Your task to perform on an android device: turn notification dots off Image 0: 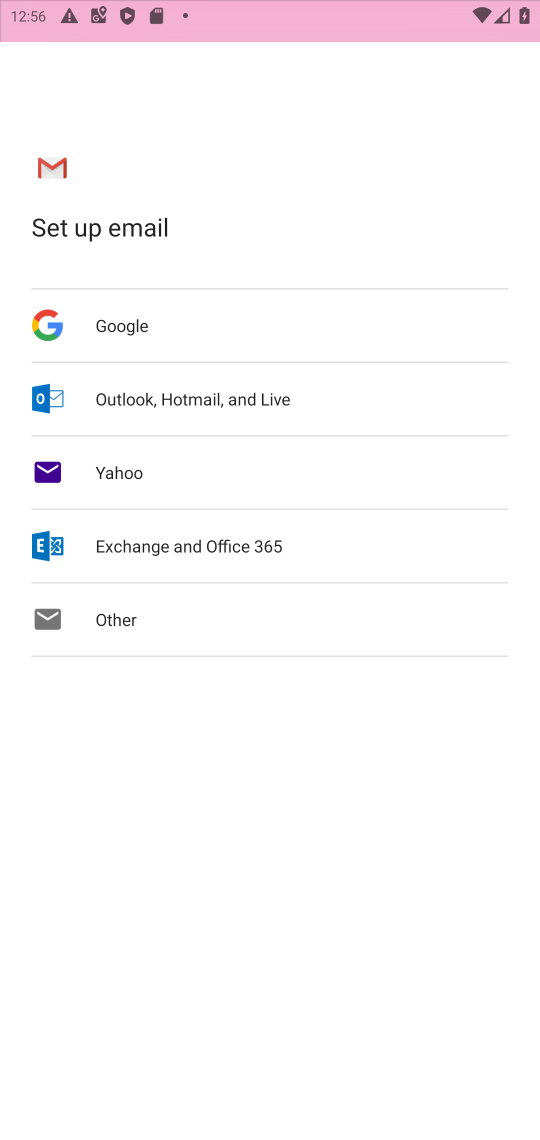
Step 0: drag from (257, 537) to (266, 374)
Your task to perform on an android device: turn notification dots off Image 1: 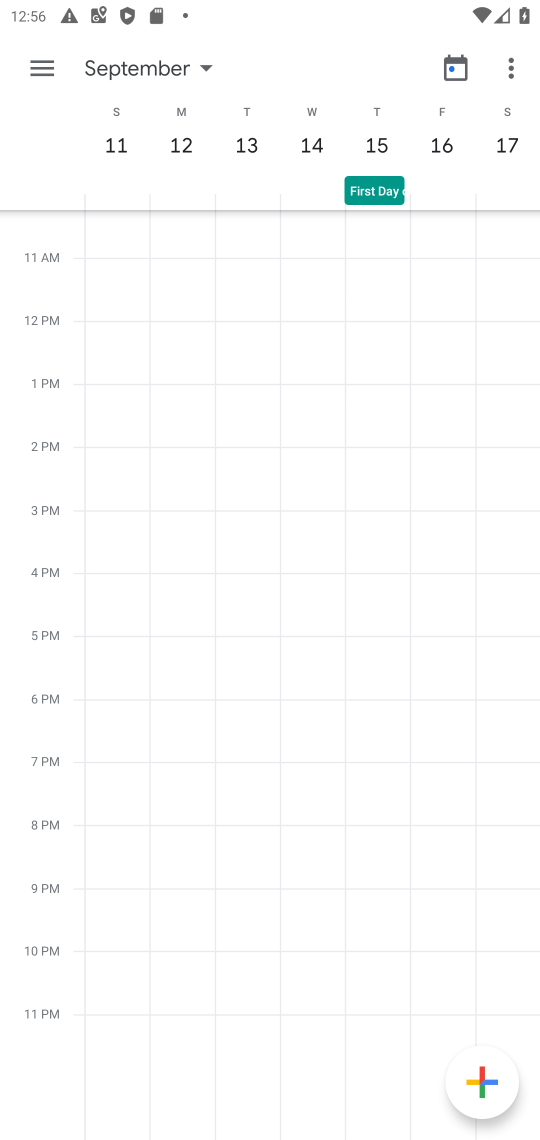
Step 1: press home button
Your task to perform on an android device: turn notification dots off Image 2: 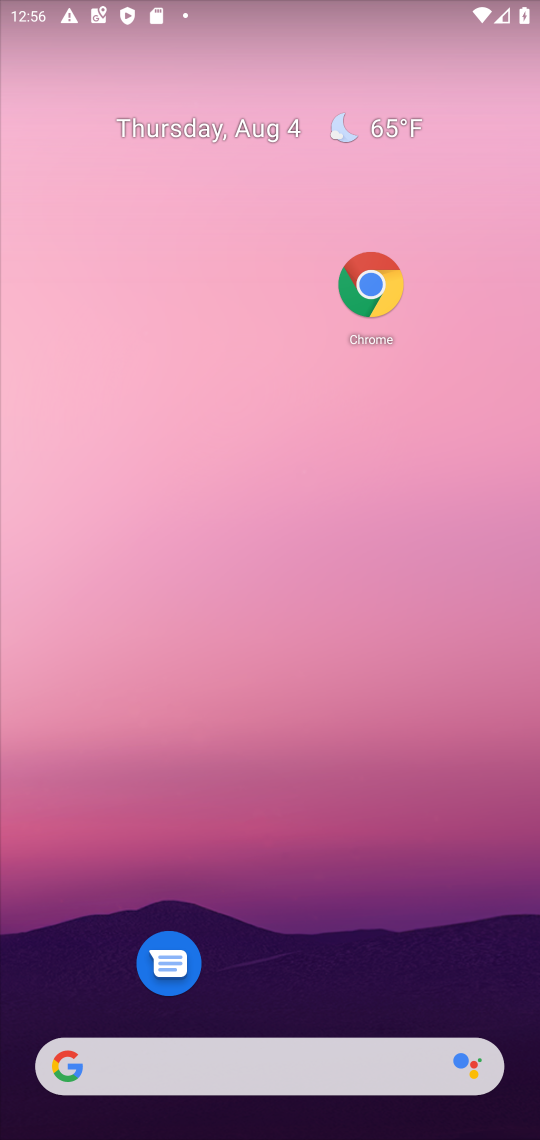
Step 2: drag from (280, 960) to (308, 325)
Your task to perform on an android device: turn notification dots off Image 3: 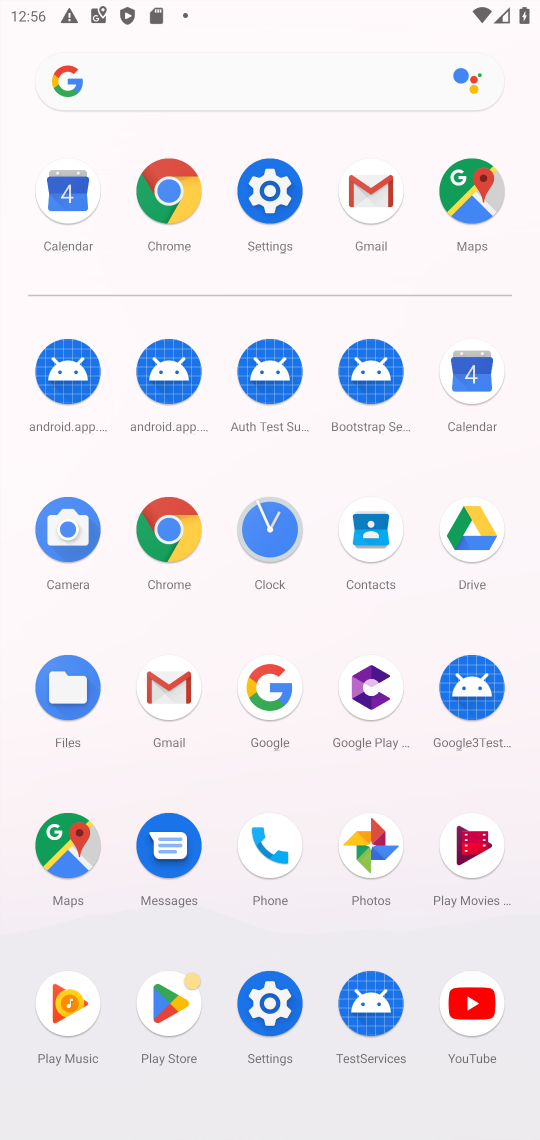
Step 3: click (257, 182)
Your task to perform on an android device: turn notification dots off Image 4: 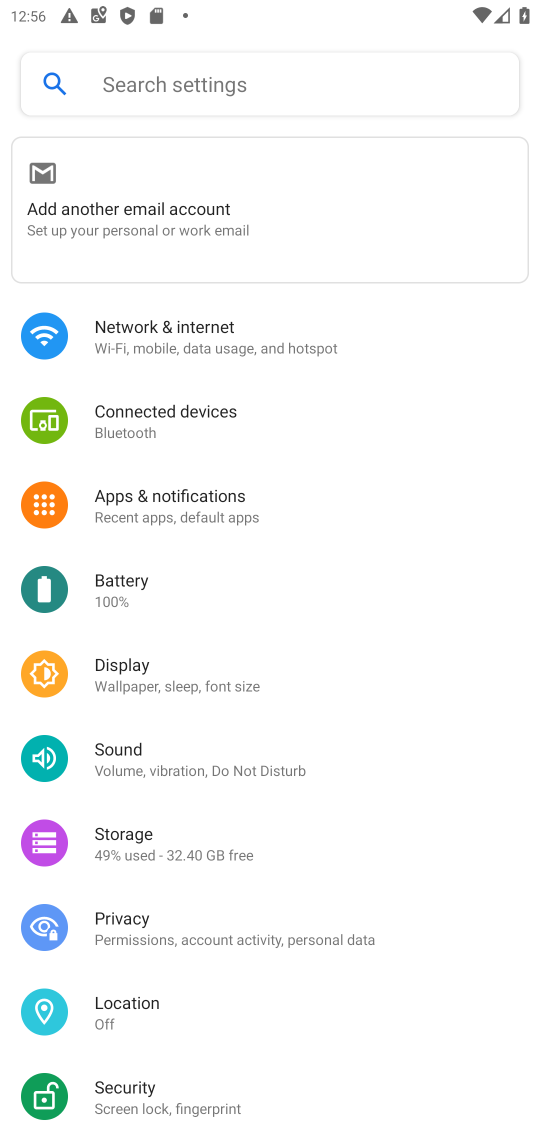
Step 4: click (254, 72)
Your task to perform on an android device: turn notification dots off Image 5: 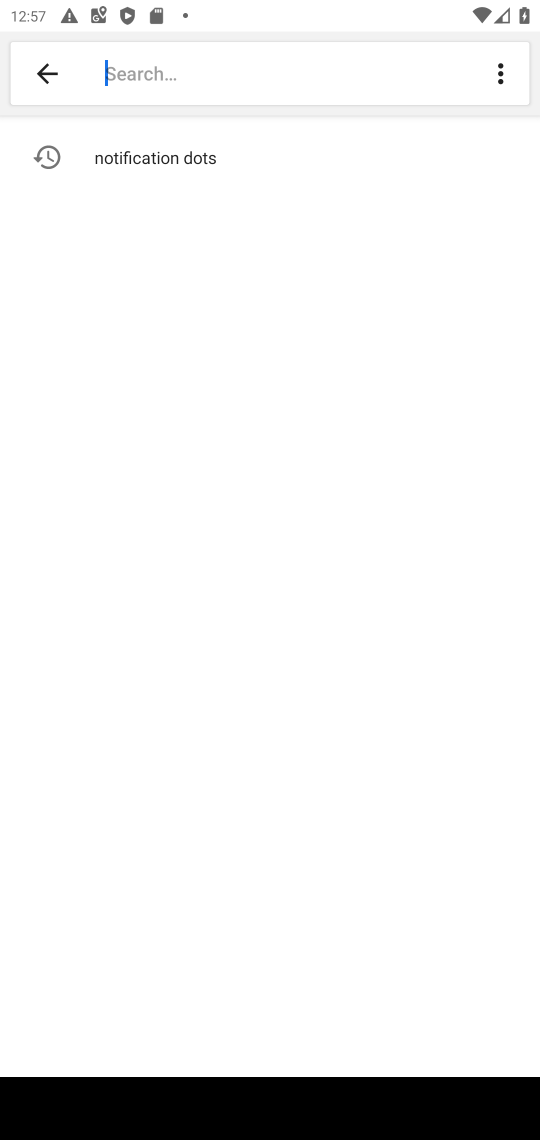
Step 5: click (176, 151)
Your task to perform on an android device: turn notification dots off Image 6: 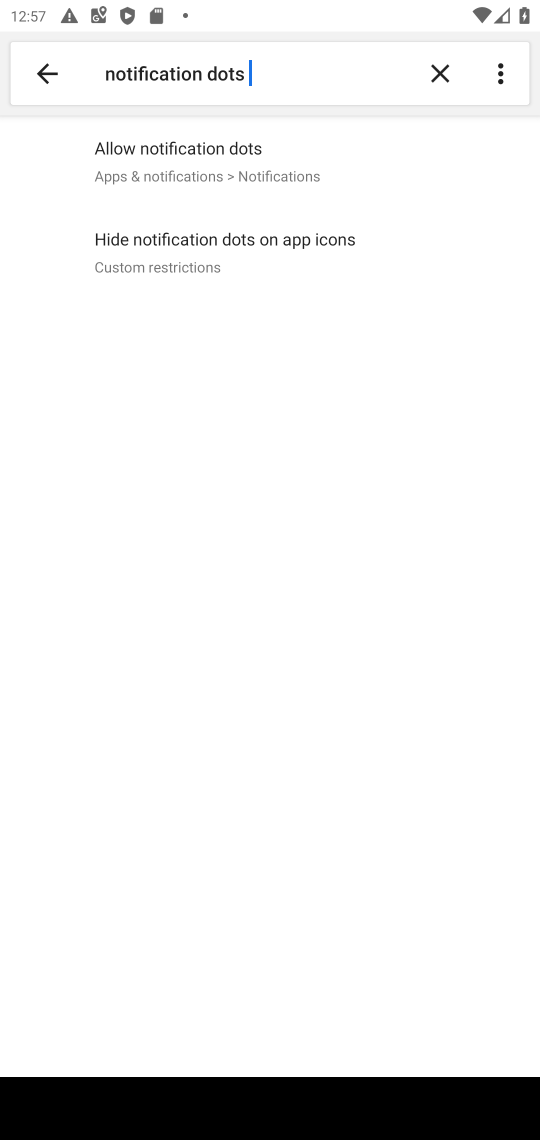
Step 6: click (264, 154)
Your task to perform on an android device: turn notification dots off Image 7: 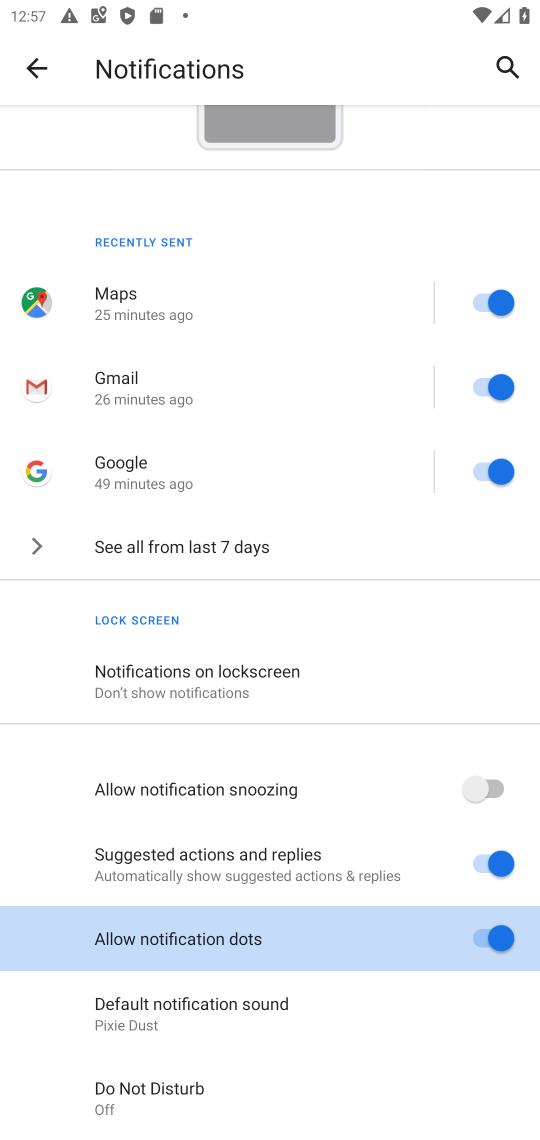
Step 7: click (487, 927)
Your task to perform on an android device: turn notification dots off Image 8: 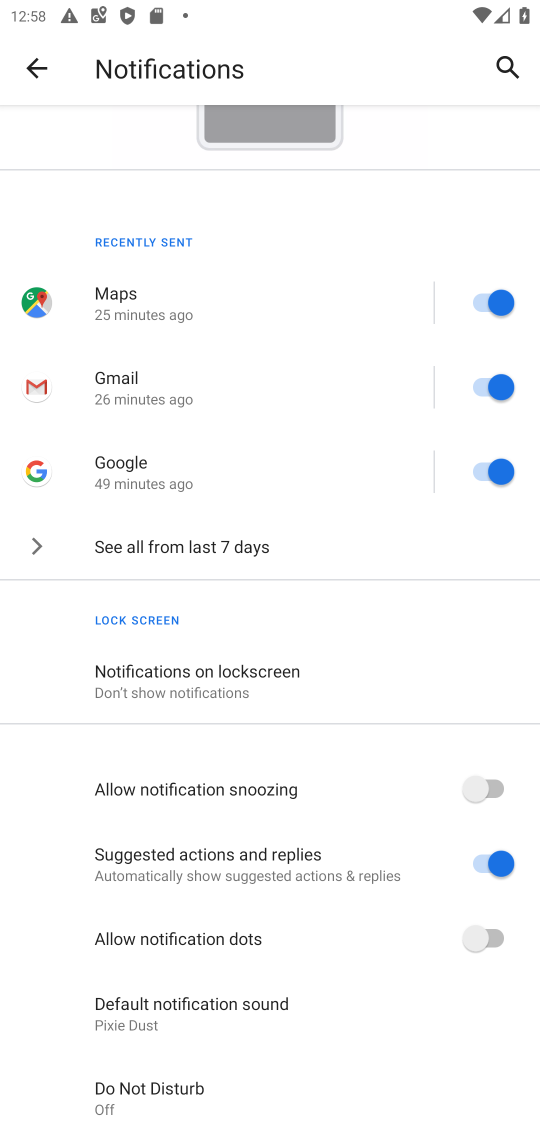
Step 8: task complete